Your task to perform on an android device: Open accessibility settings Image 0: 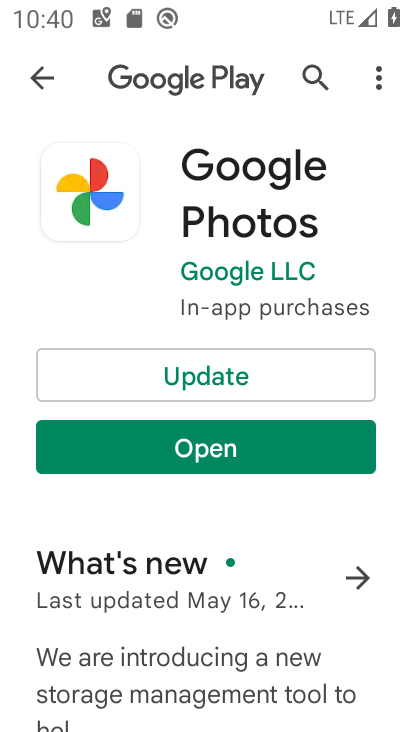
Step 0: press home button
Your task to perform on an android device: Open accessibility settings Image 1: 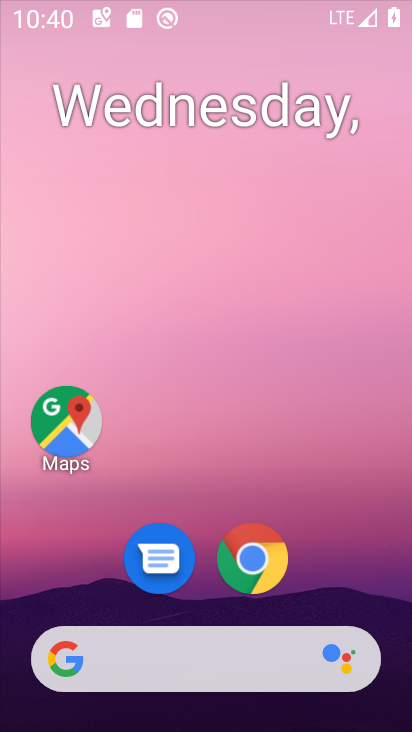
Step 1: drag from (20, 613) to (240, 151)
Your task to perform on an android device: Open accessibility settings Image 2: 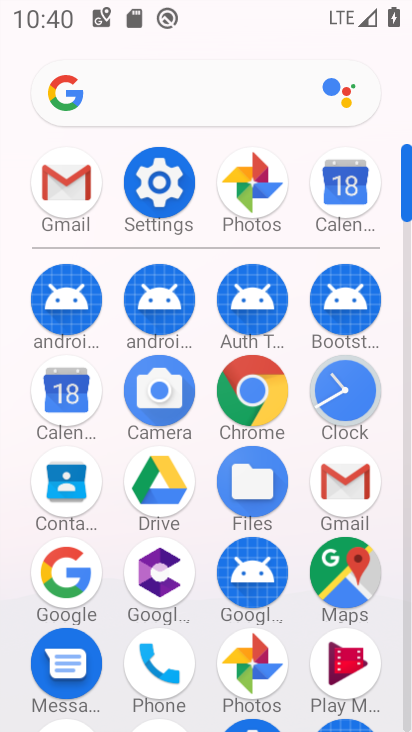
Step 2: click (138, 194)
Your task to perform on an android device: Open accessibility settings Image 3: 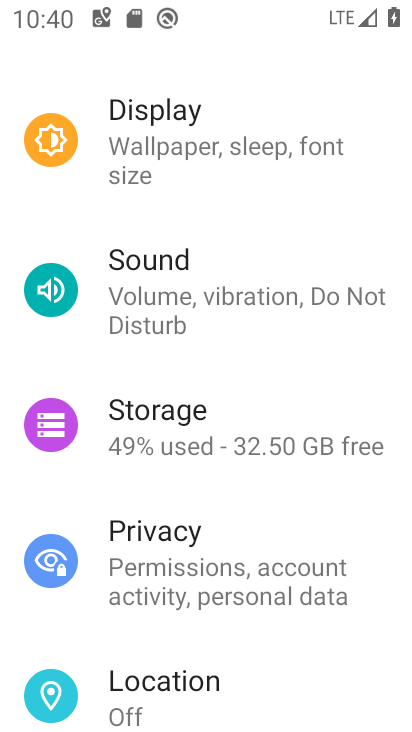
Step 3: drag from (87, 611) to (280, 171)
Your task to perform on an android device: Open accessibility settings Image 4: 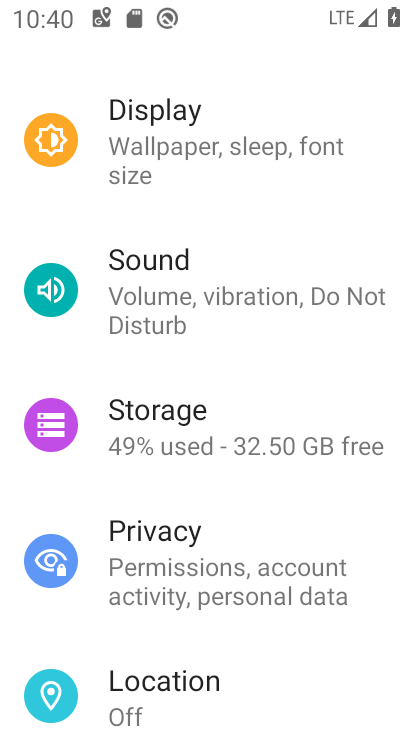
Step 4: drag from (22, 596) to (190, 261)
Your task to perform on an android device: Open accessibility settings Image 5: 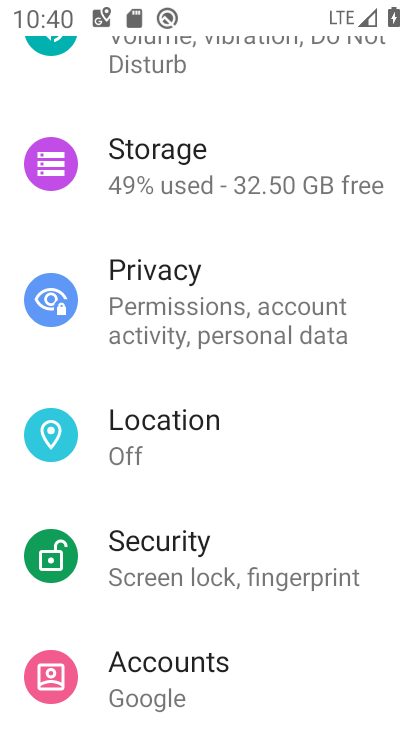
Step 5: drag from (30, 417) to (206, 201)
Your task to perform on an android device: Open accessibility settings Image 6: 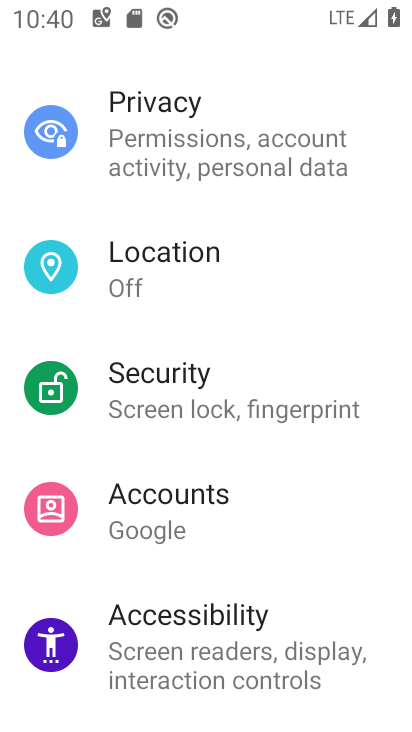
Step 6: click (158, 643)
Your task to perform on an android device: Open accessibility settings Image 7: 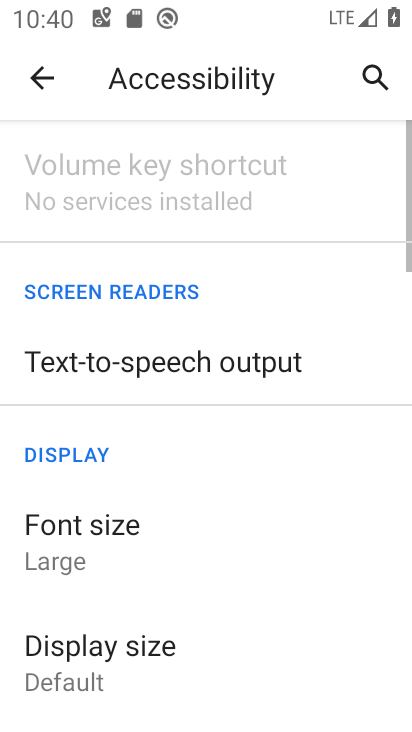
Step 7: task complete